Your task to perform on an android device: Open the phone app and click the voicemail tab. Image 0: 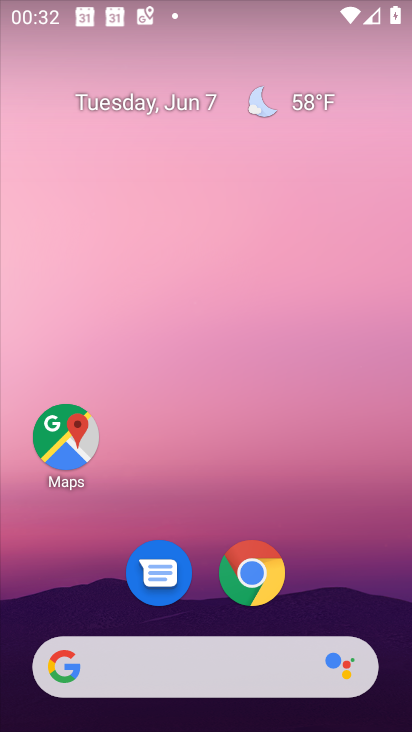
Step 0: press home button
Your task to perform on an android device: Open the phone app and click the voicemail tab. Image 1: 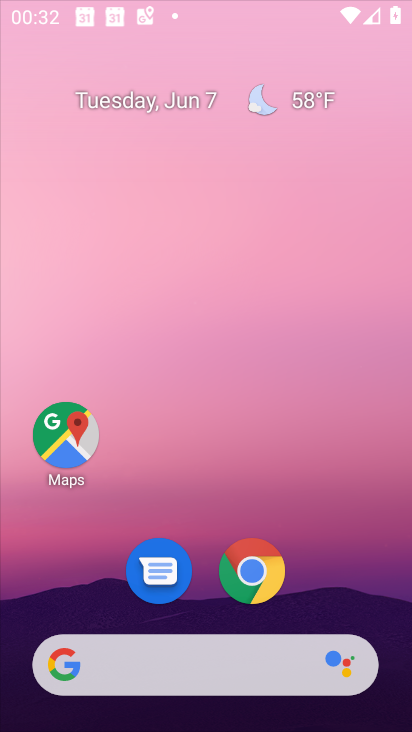
Step 1: drag from (320, 388) to (320, 53)
Your task to perform on an android device: Open the phone app and click the voicemail tab. Image 2: 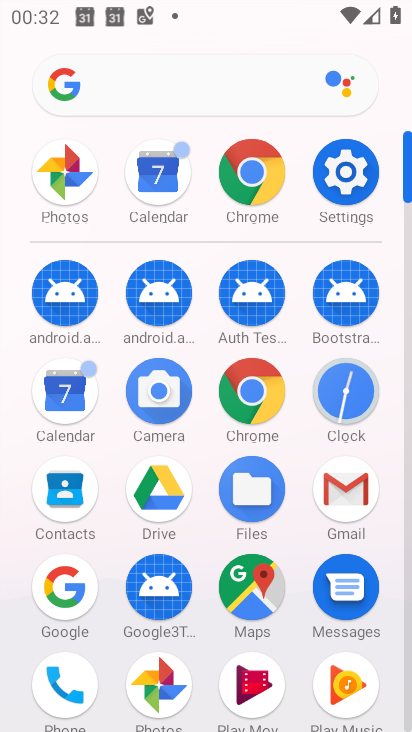
Step 2: click (83, 695)
Your task to perform on an android device: Open the phone app and click the voicemail tab. Image 3: 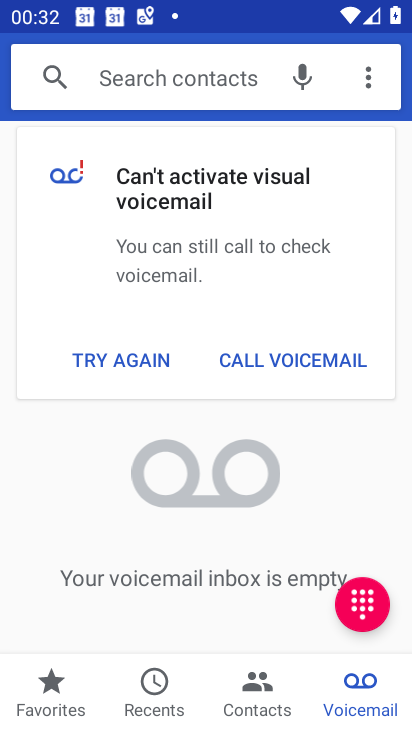
Step 3: click (356, 695)
Your task to perform on an android device: Open the phone app and click the voicemail tab. Image 4: 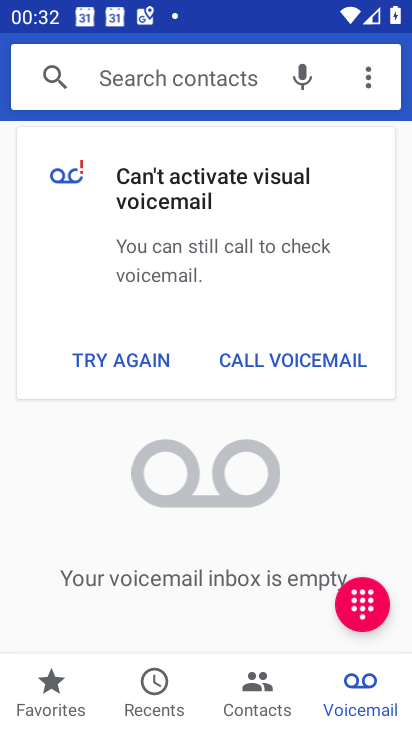
Step 4: task complete